Your task to perform on an android device: Open Chrome and go to the settings page Image 0: 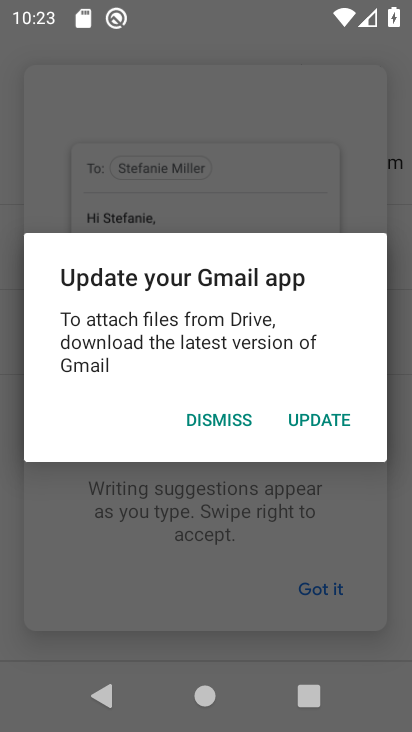
Step 0: press home button
Your task to perform on an android device: Open Chrome and go to the settings page Image 1: 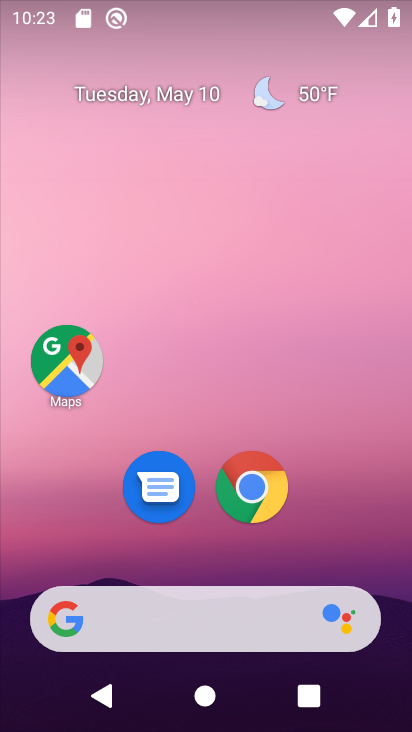
Step 1: drag from (334, 546) to (258, 184)
Your task to perform on an android device: Open Chrome and go to the settings page Image 2: 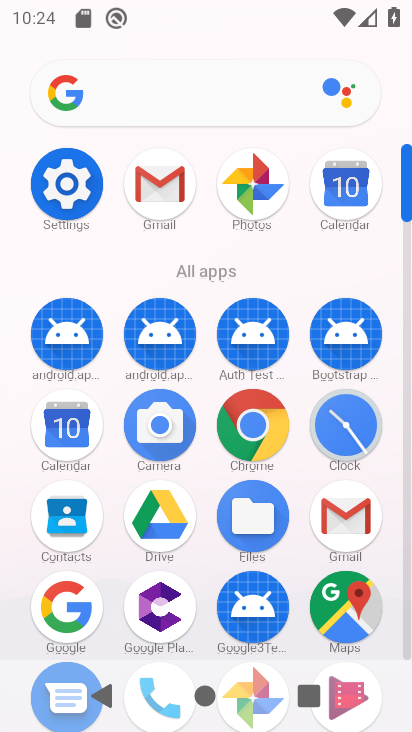
Step 2: click (246, 462)
Your task to perform on an android device: Open Chrome and go to the settings page Image 3: 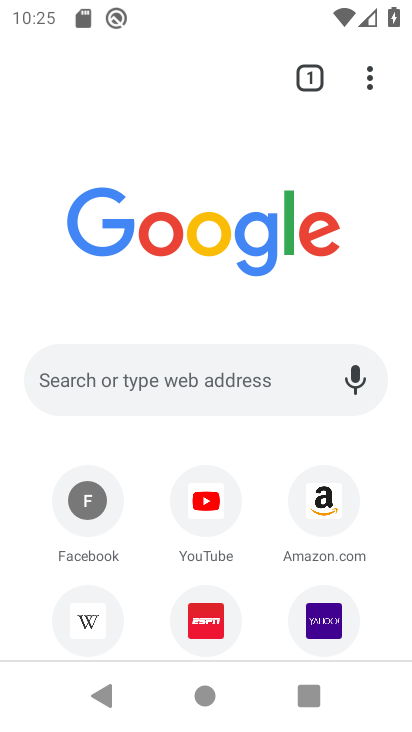
Step 3: task complete